Your task to perform on an android device: Search for Italian restaurants on Maps Image 0: 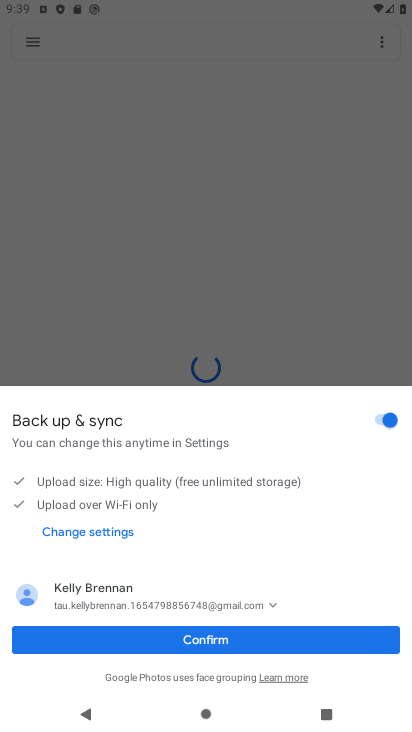
Step 0: press home button
Your task to perform on an android device: Search for Italian restaurants on Maps Image 1: 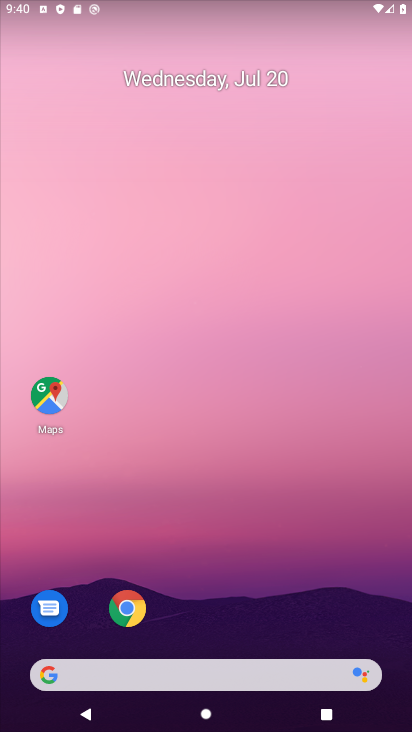
Step 1: drag from (202, 608) to (200, 132)
Your task to perform on an android device: Search for Italian restaurants on Maps Image 2: 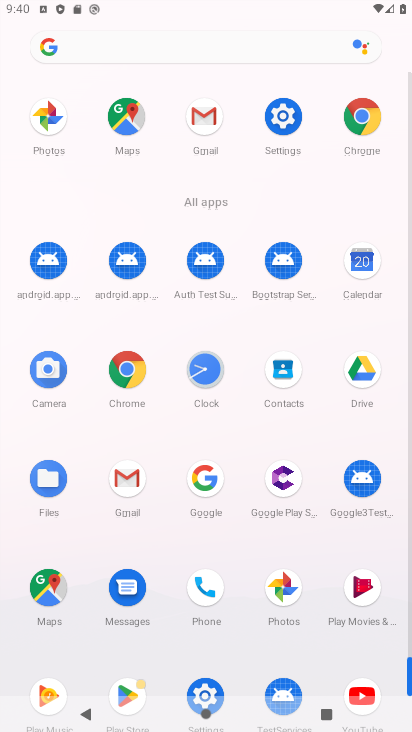
Step 2: click (50, 602)
Your task to perform on an android device: Search for Italian restaurants on Maps Image 3: 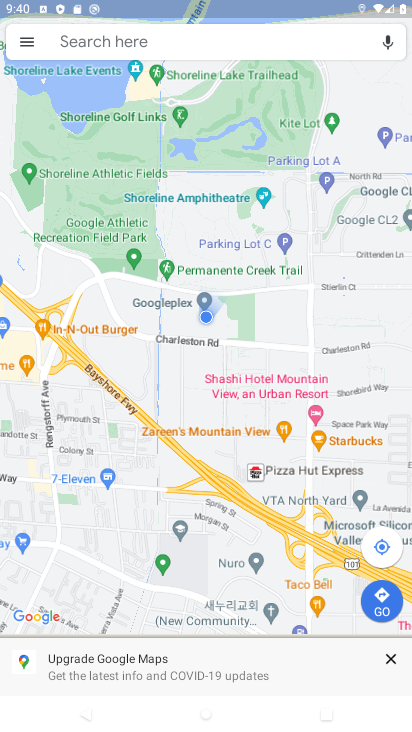
Step 3: click (113, 43)
Your task to perform on an android device: Search for Italian restaurants on Maps Image 4: 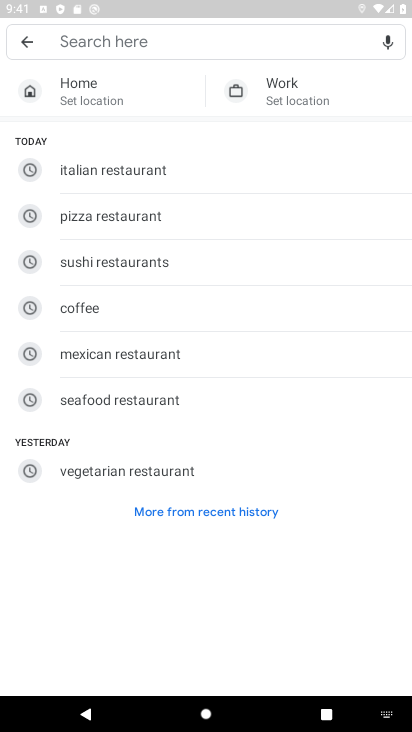
Step 4: click (138, 169)
Your task to perform on an android device: Search for Italian restaurants on Maps Image 5: 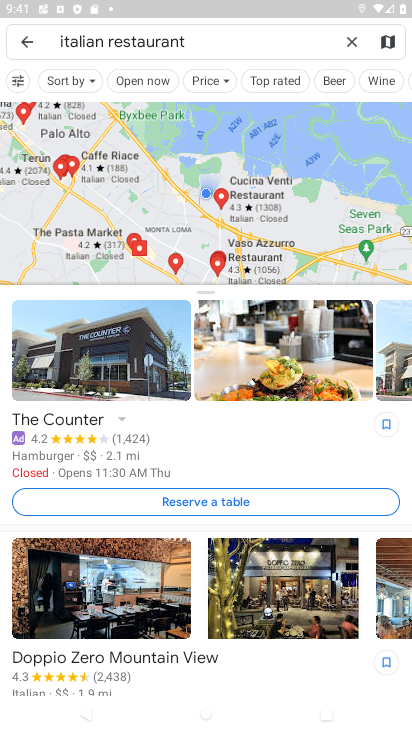
Step 5: task complete